Your task to perform on an android device: make emails show in primary in the gmail app Image 0: 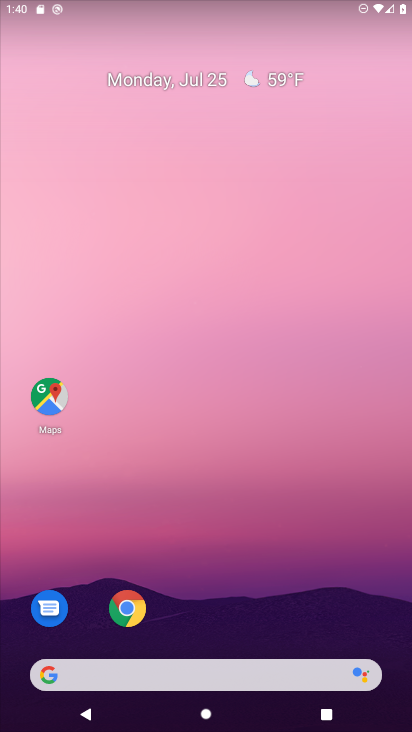
Step 0: drag from (380, 613) to (327, 5)
Your task to perform on an android device: make emails show in primary in the gmail app Image 1: 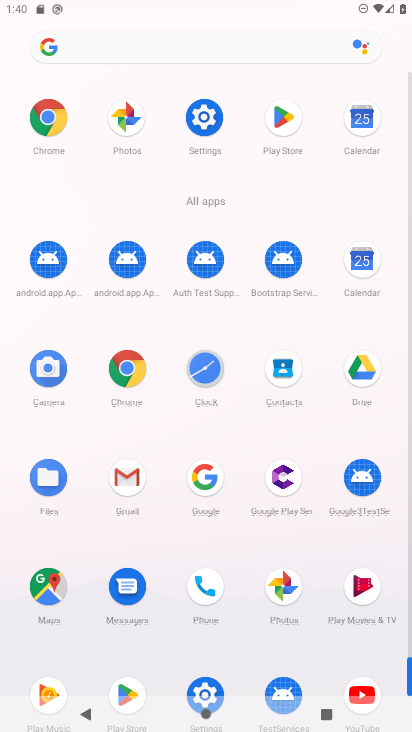
Step 1: click (128, 476)
Your task to perform on an android device: make emails show in primary in the gmail app Image 2: 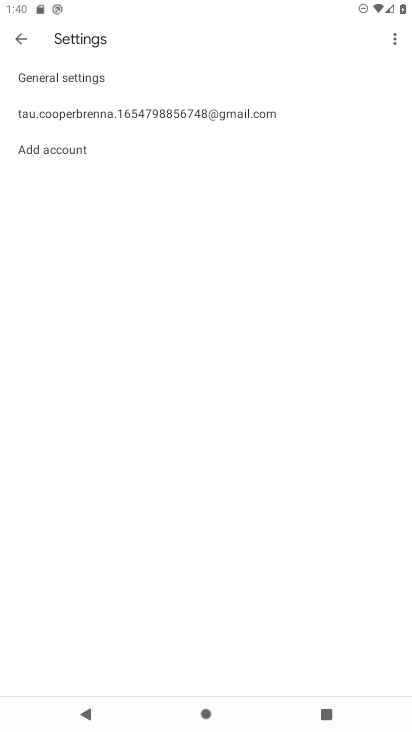
Step 2: click (80, 116)
Your task to perform on an android device: make emails show in primary in the gmail app Image 3: 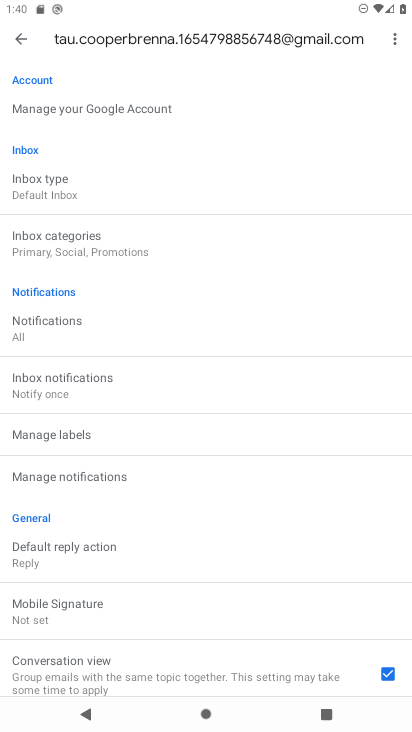
Step 3: click (46, 244)
Your task to perform on an android device: make emails show in primary in the gmail app Image 4: 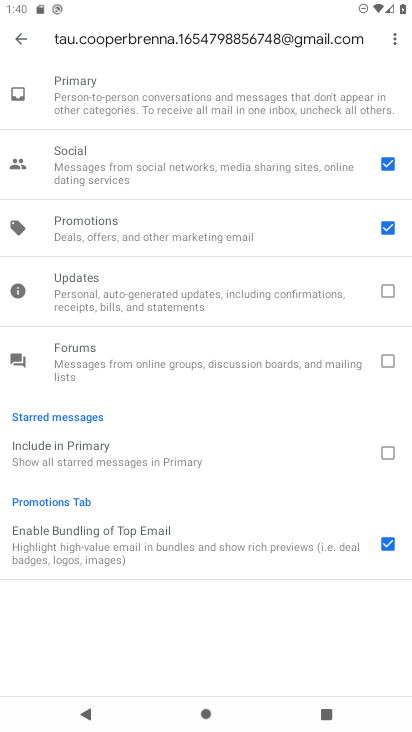
Step 4: click (389, 229)
Your task to perform on an android device: make emails show in primary in the gmail app Image 5: 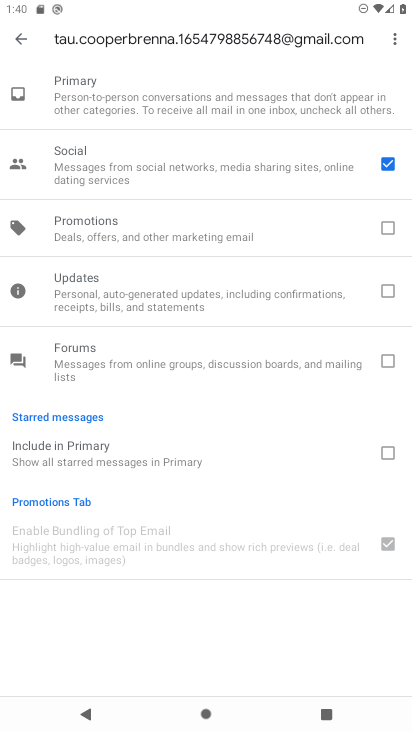
Step 5: click (386, 166)
Your task to perform on an android device: make emails show in primary in the gmail app Image 6: 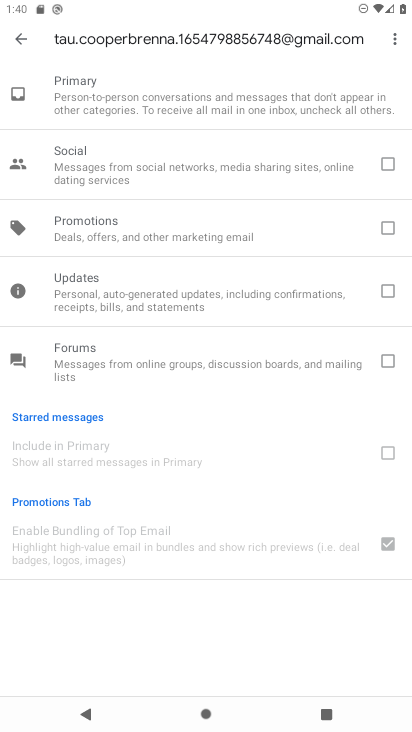
Step 6: task complete